Your task to perform on an android device: toggle translation in the chrome app Image 0: 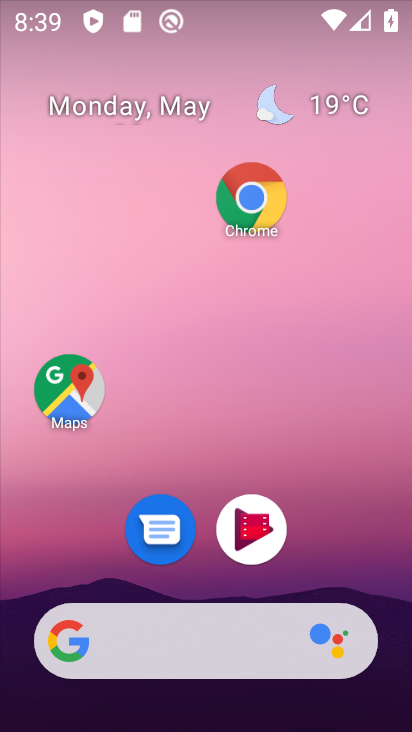
Step 0: click (257, 197)
Your task to perform on an android device: toggle translation in the chrome app Image 1: 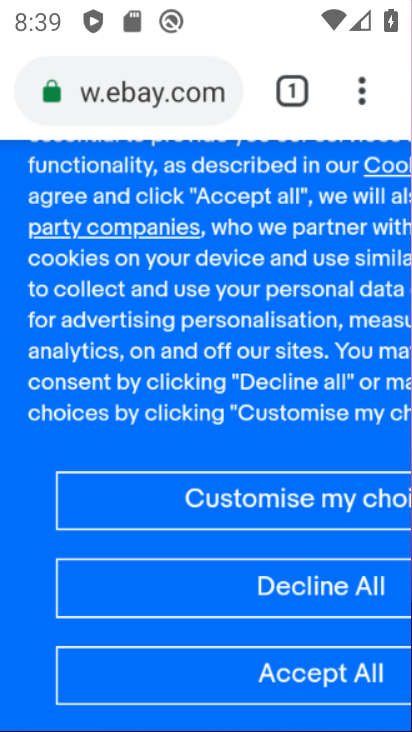
Step 1: click (260, 225)
Your task to perform on an android device: toggle translation in the chrome app Image 2: 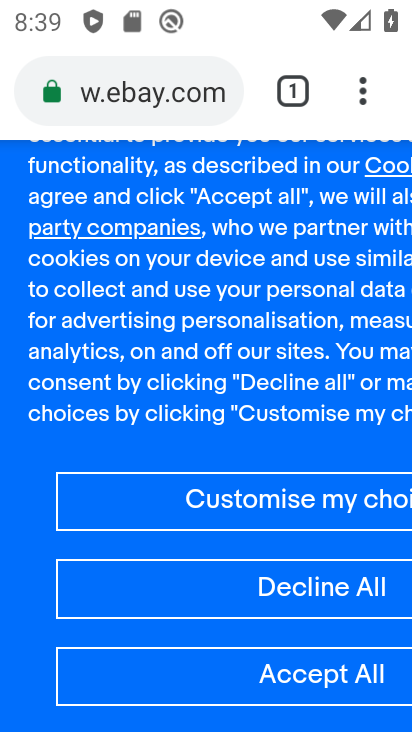
Step 2: click (360, 104)
Your task to perform on an android device: toggle translation in the chrome app Image 3: 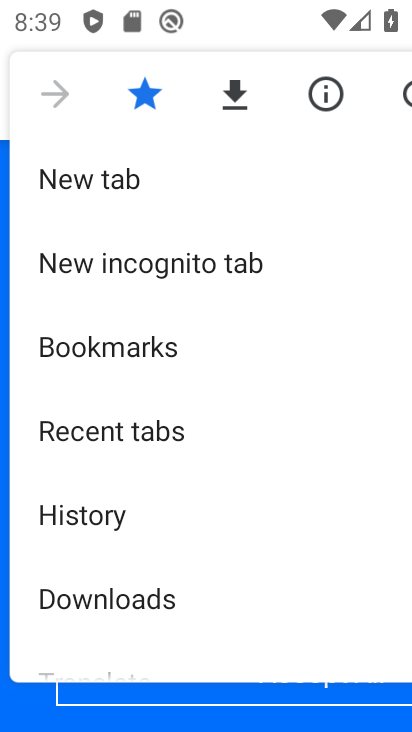
Step 3: drag from (121, 577) to (123, 369)
Your task to perform on an android device: toggle translation in the chrome app Image 4: 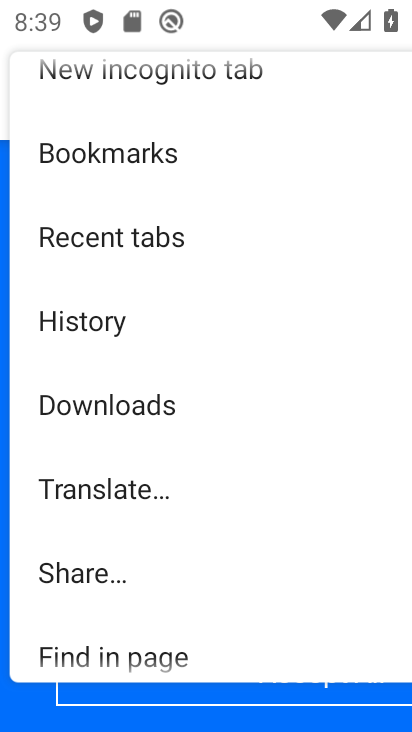
Step 4: drag from (141, 554) to (140, 405)
Your task to perform on an android device: toggle translation in the chrome app Image 5: 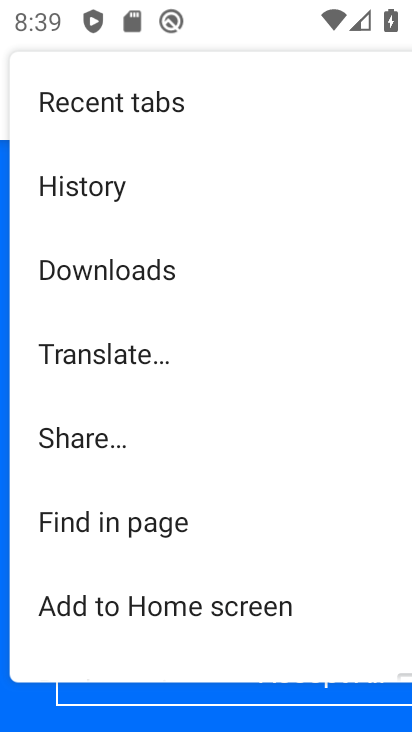
Step 5: drag from (128, 643) to (125, 463)
Your task to perform on an android device: toggle translation in the chrome app Image 6: 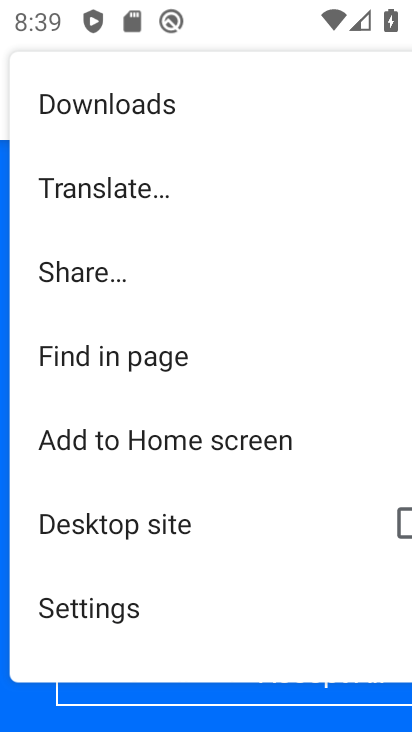
Step 6: click (117, 615)
Your task to perform on an android device: toggle translation in the chrome app Image 7: 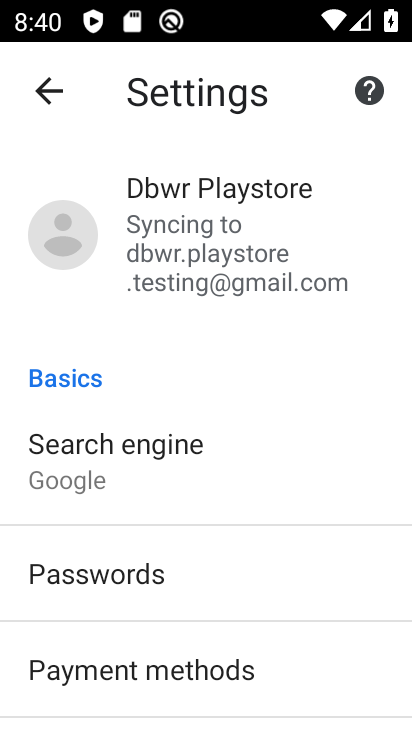
Step 7: drag from (167, 671) to (159, 446)
Your task to perform on an android device: toggle translation in the chrome app Image 8: 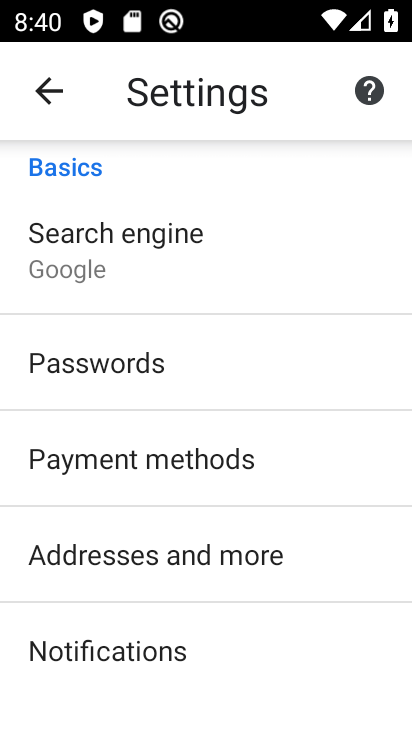
Step 8: click (148, 415)
Your task to perform on an android device: toggle translation in the chrome app Image 9: 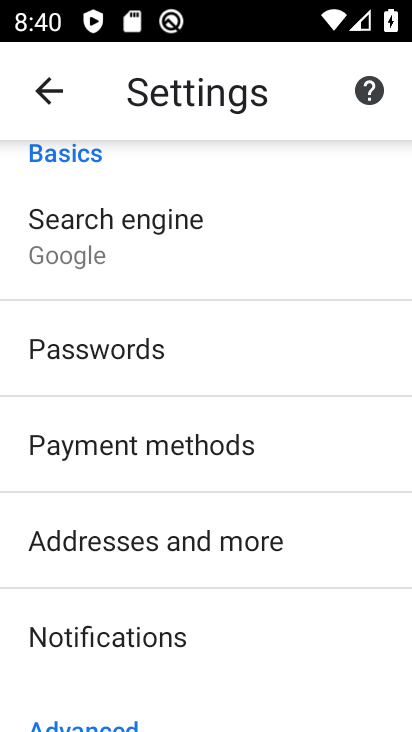
Step 9: drag from (182, 586) to (170, 349)
Your task to perform on an android device: toggle translation in the chrome app Image 10: 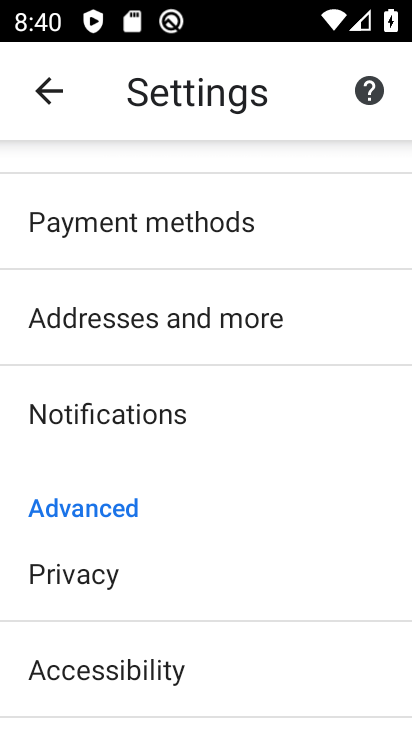
Step 10: drag from (136, 602) to (154, 421)
Your task to perform on an android device: toggle translation in the chrome app Image 11: 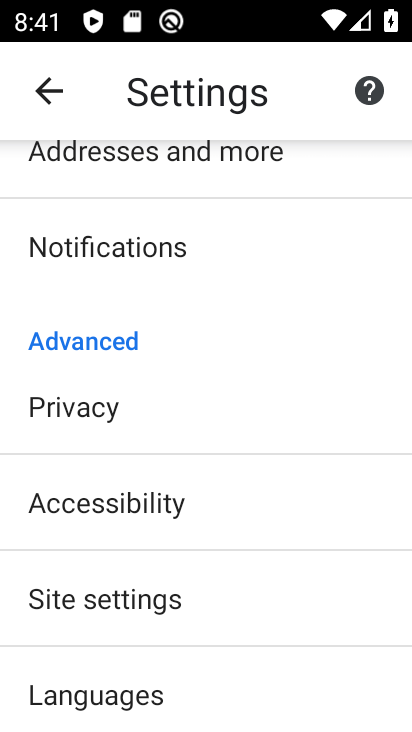
Step 11: drag from (141, 628) to (128, 407)
Your task to perform on an android device: toggle translation in the chrome app Image 12: 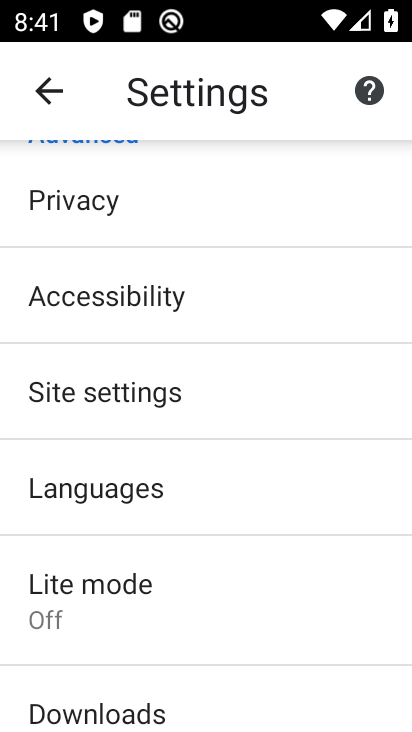
Step 12: drag from (145, 656) to (145, 371)
Your task to perform on an android device: toggle translation in the chrome app Image 13: 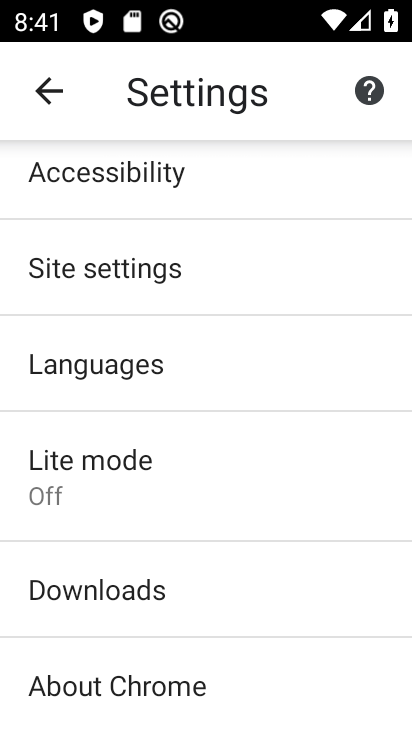
Step 13: click (116, 379)
Your task to perform on an android device: toggle translation in the chrome app Image 14: 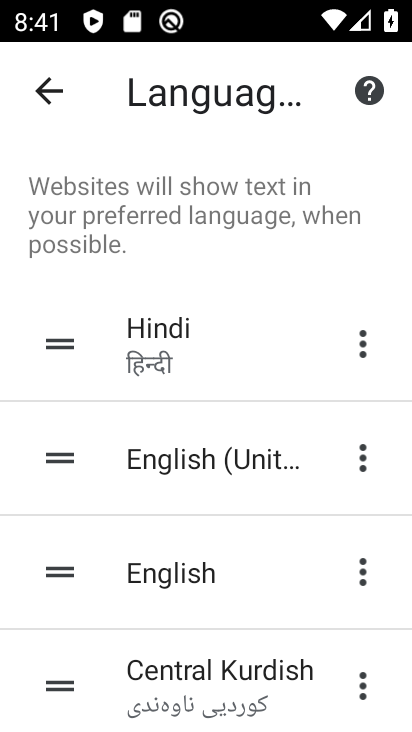
Step 14: drag from (196, 719) to (206, 414)
Your task to perform on an android device: toggle translation in the chrome app Image 15: 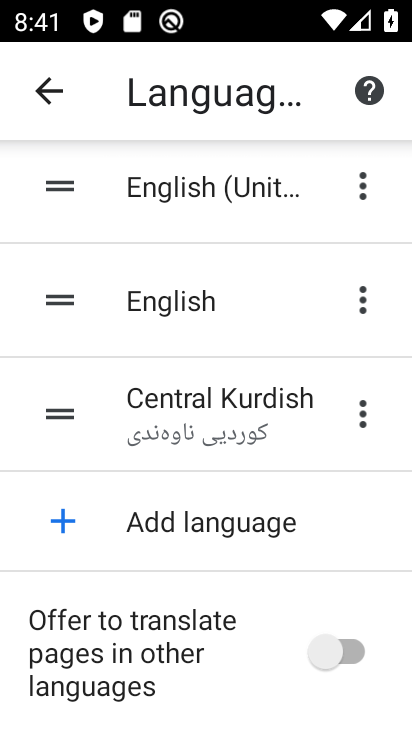
Step 15: click (354, 653)
Your task to perform on an android device: toggle translation in the chrome app Image 16: 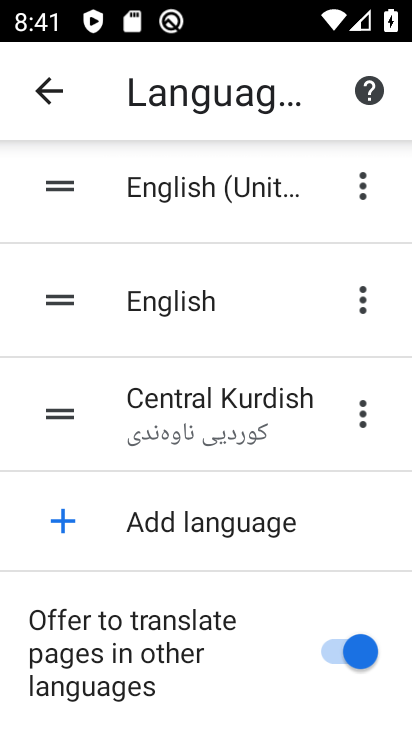
Step 16: task complete